Your task to perform on an android device: Open display settings Image 0: 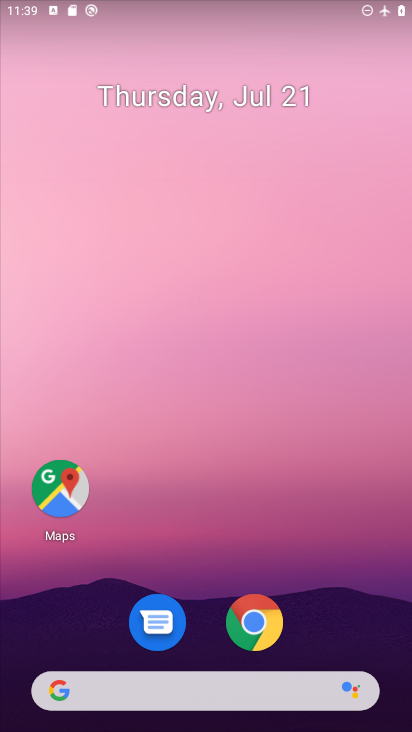
Step 0: drag from (297, 725) to (260, 20)
Your task to perform on an android device: Open display settings Image 1: 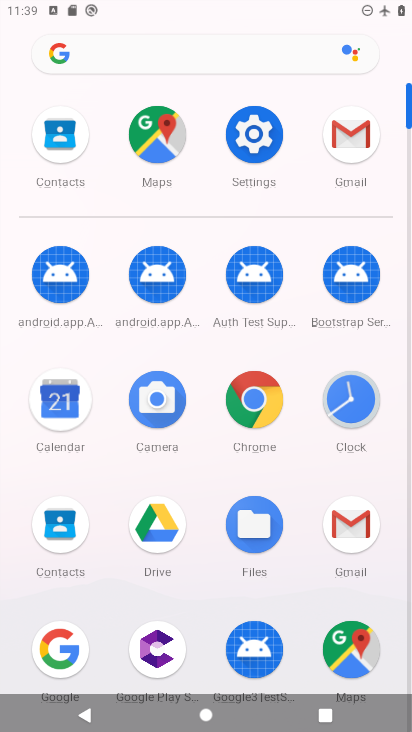
Step 1: click (231, 122)
Your task to perform on an android device: Open display settings Image 2: 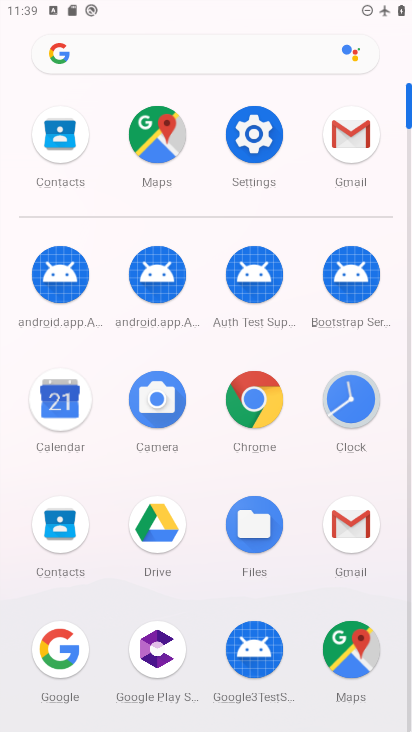
Step 2: click (231, 122)
Your task to perform on an android device: Open display settings Image 3: 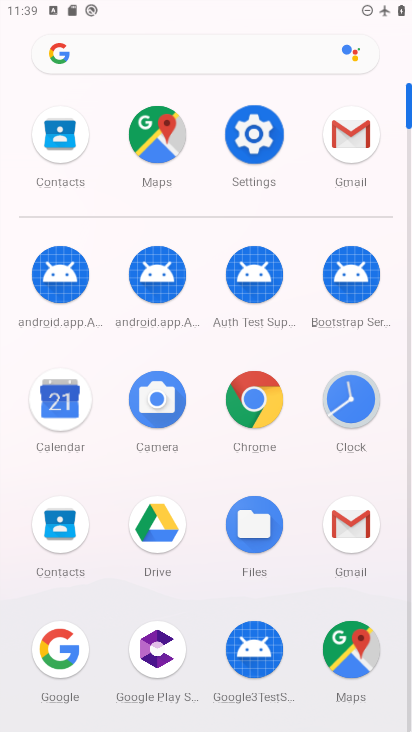
Step 3: click (231, 122)
Your task to perform on an android device: Open display settings Image 4: 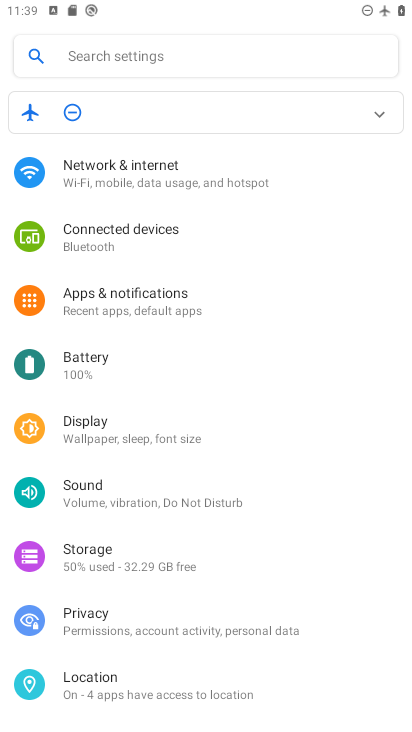
Step 4: click (127, 434)
Your task to perform on an android device: Open display settings Image 5: 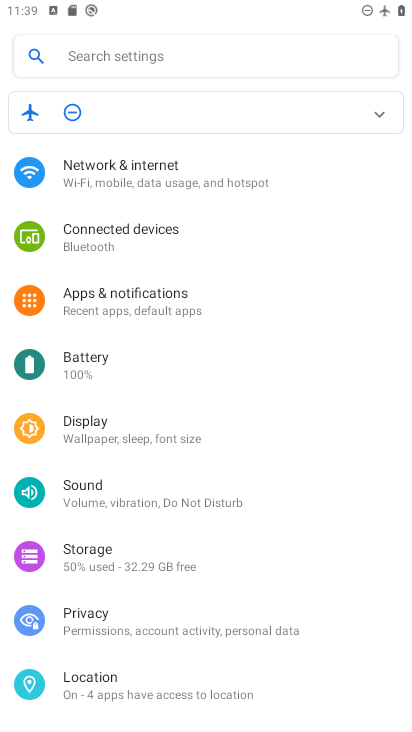
Step 5: click (127, 434)
Your task to perform on an android device: Open display settings Image 6: 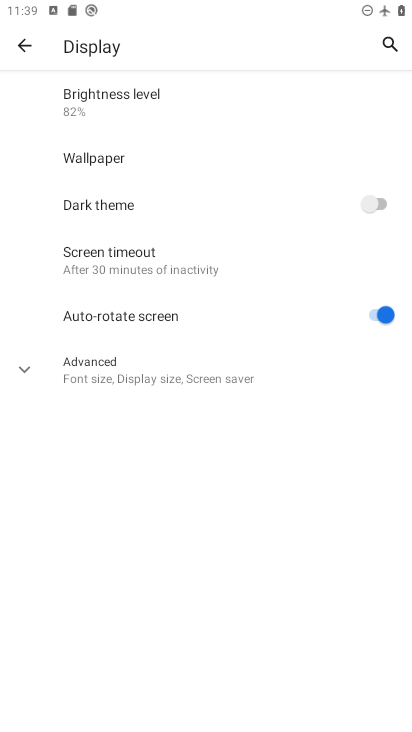
Step 6: task complete